Your task to perform on an android device: turn off improve location accuracy Image 0: 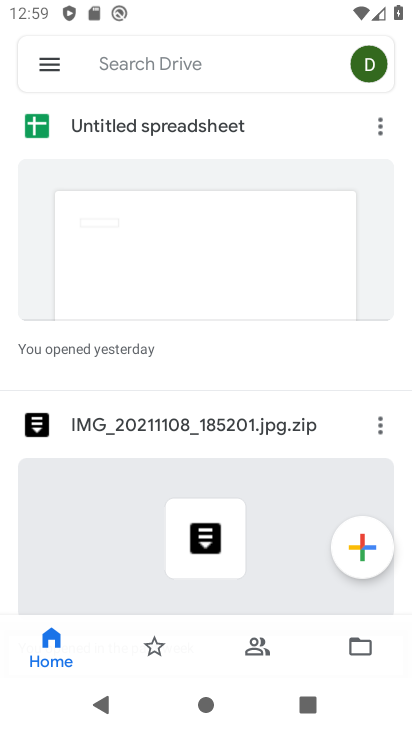
Step 0: press home button
Your task to perform on an android device: turn off improve location accuracy Image 1: 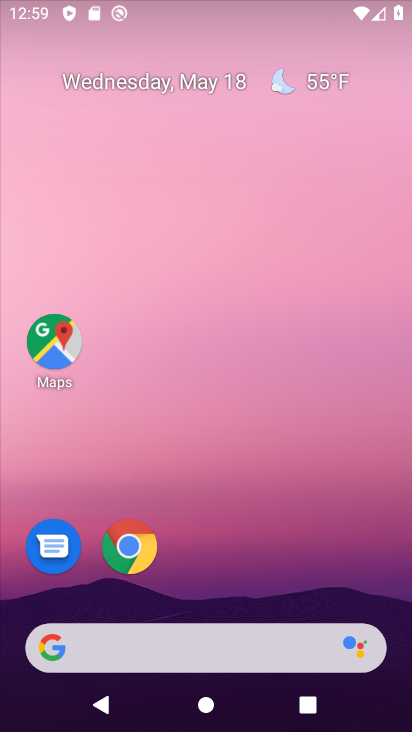
Step 1: drag from (347, 540) to (356, 148)
Your task to perform on an android device: turn off improve location accuracy Image 2: 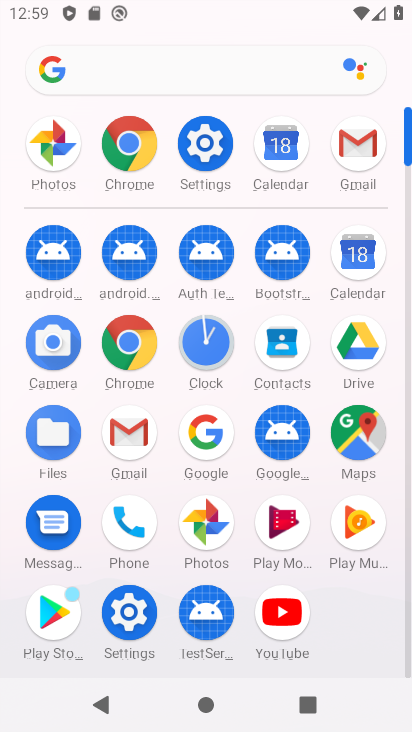
Step 2: click (140, 610)
Your task to perform on an android device: turn off improve location accuracy Image 3: 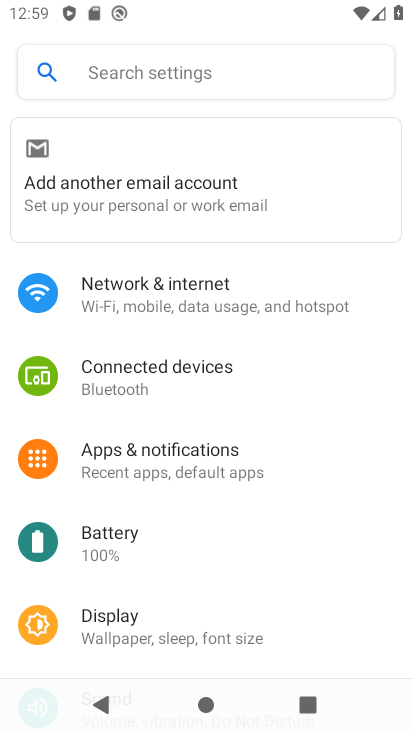
Step 3: click (223, 464)
Your task to perform on an android device: turn off improve location accuracy Image 4: 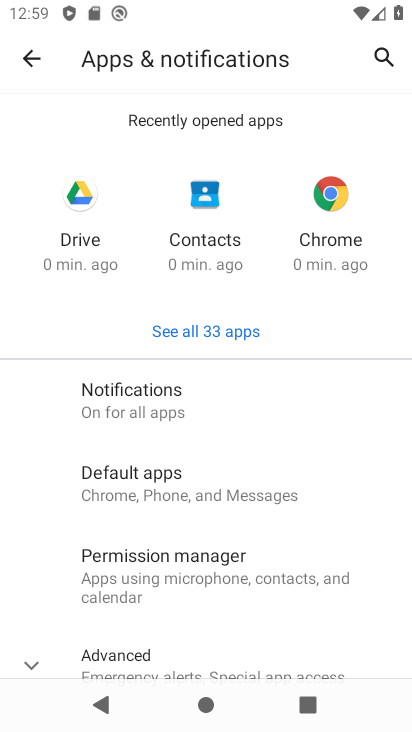
Step 4: drag from (338, 620) to (295, 206)
Your task to perform on an android device: turn off improve location accuracy Image 5: 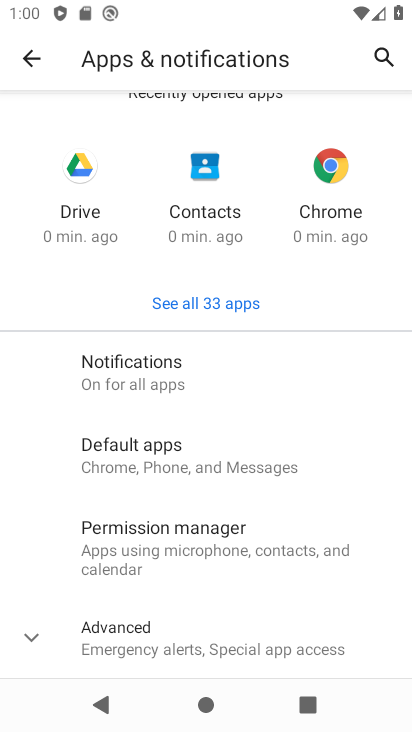
Step 5: click (236, 644)
Your task to perform on an android device: turn off improve location accuracy Image 6: 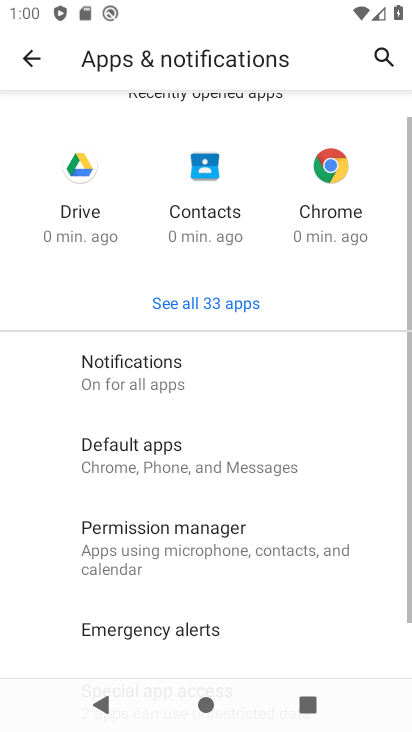
Step 6: drag from (318, 643) to (269, 239)
Your task to perform on an android device: turn off improve location accuracy Image 7: 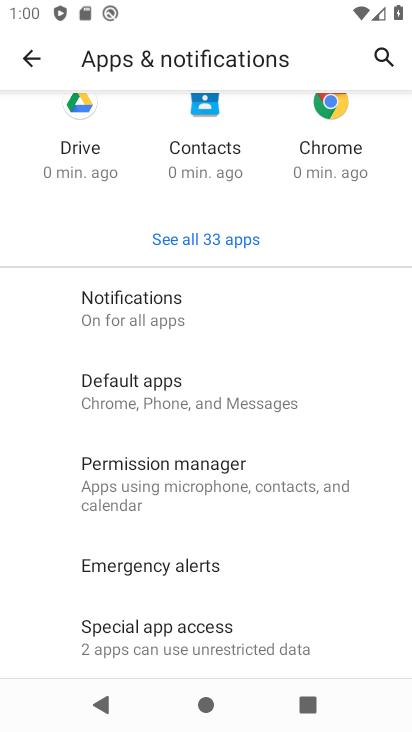
Step 7: click (165, 309)
Your task to perform on an android device: turn off improve location accuracy Image 8: 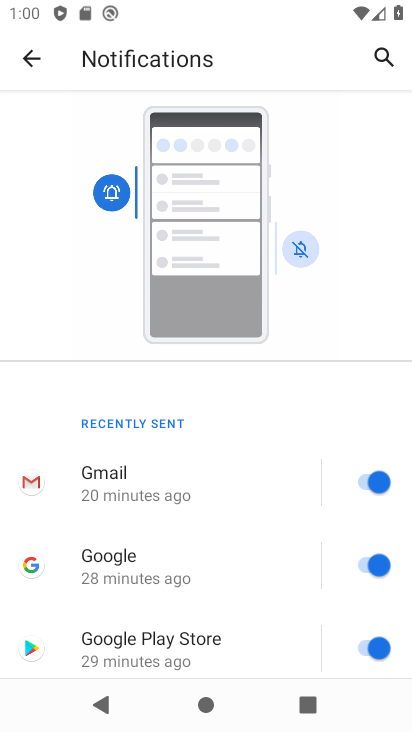
Step 8: drag from (258, 640) to (272, 172)
Your task to perform on an android device: turn off improve location accuracy Image 9: 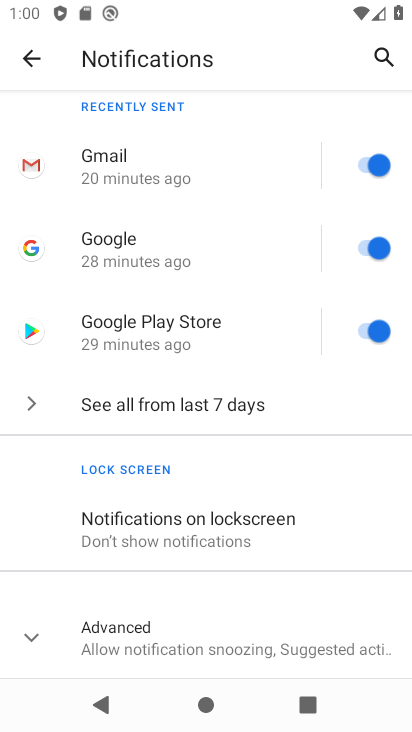
Step 9: click (262, 617)
Your task to perform on an android device: turn off improve location accuracy Image 10: 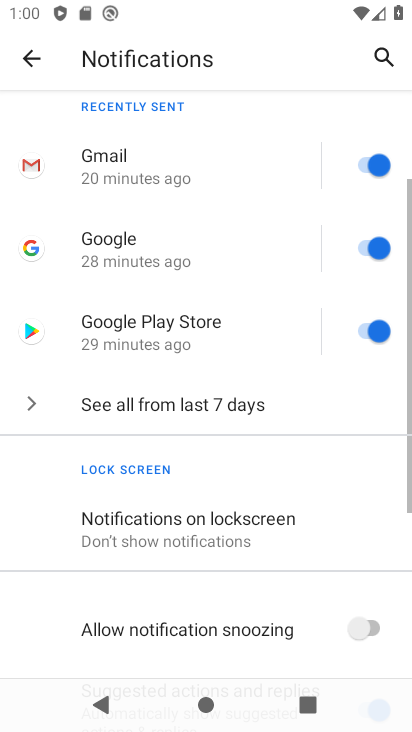
Step 10: drag from (272, 657) to (264, 315)
Your task to perform on an android device: turn off improve location accuracy Image 11: 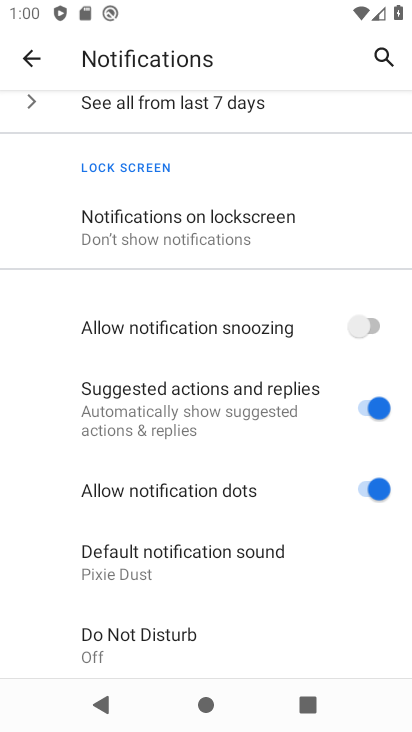
Step 11: click (365, 491)
Your task to perform on an android device: turn off improve location accuracy Image 12: 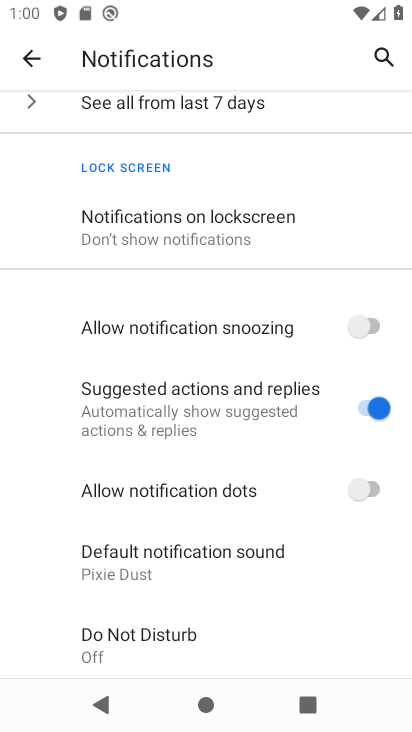
Step 12: task complete